Your task to perform on an android device: Go to internet settings Image 0: 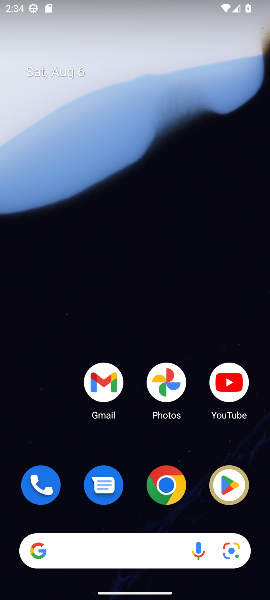
Step 0: drag from (131, 453) to (27, 17)
Your task to perform on an android device: Go to internet settings Image 1: 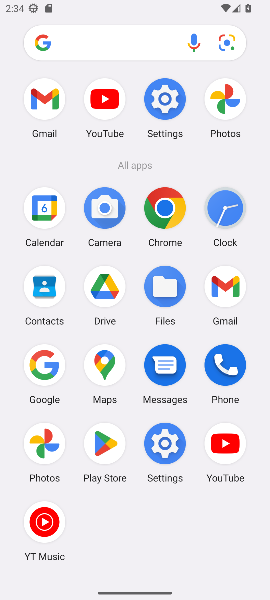
Step 1: click (161, 94)
Your task to perform on an android device: Go to internet settings Image 2: 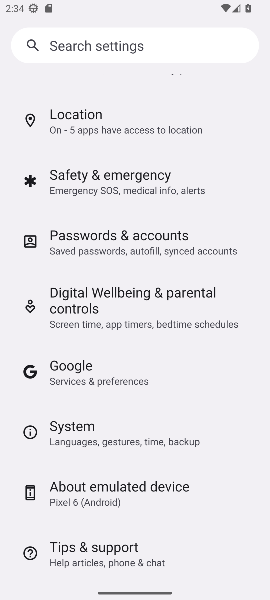
Step 2: drag from (119, 126) to (94, 555)
Your task to perform on an android device: Go to internet settings Image 3: 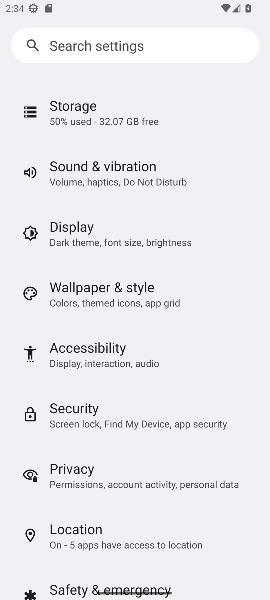
Step 3: drag from (119, 107) to (102, 569)
Your task to perform on an android device: Go to internet settings Image 4: 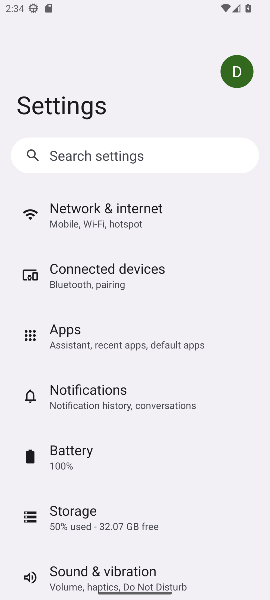
Step 4: click (107, 215)
Your task to perform on an android device: Go to internet settings Image 5: 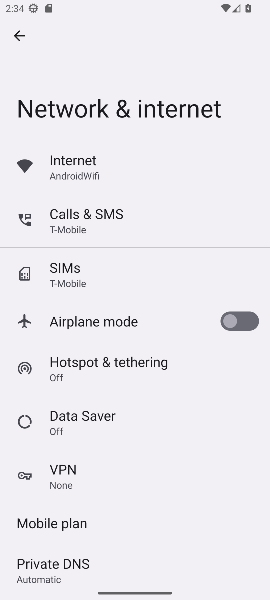
Step 5: click (113, 161)
Your task to perform on an android device: Go to internet settings Image 6: 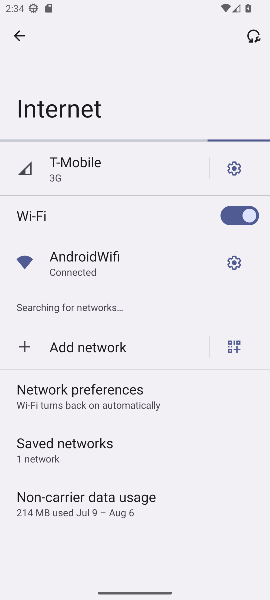
Step 6: task complete